Your task to perform on an android device: Open calendar and show me the third week of next month Image 0: 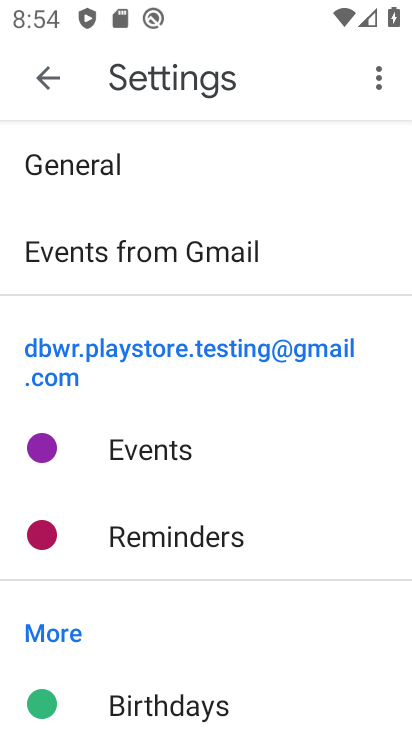
Step 0: press home button
Your task to perform on an android device: Open calendar and show me the third week of next month Image 1: 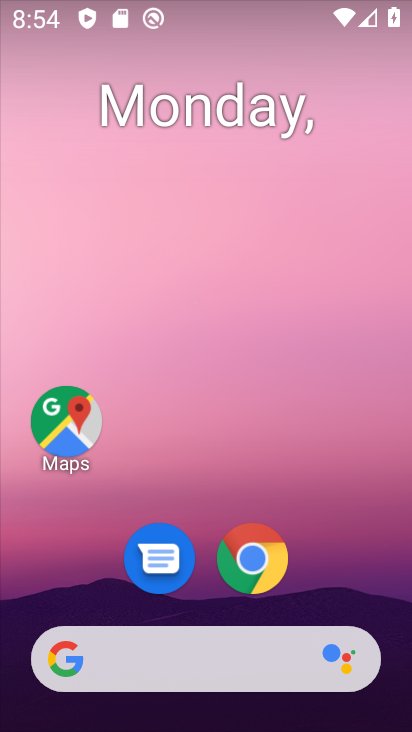
Step 1: drag from (318, 597) to (310, 40)
Your task to perform on an android device: Open calendar and show me the third week of next month Image 2: 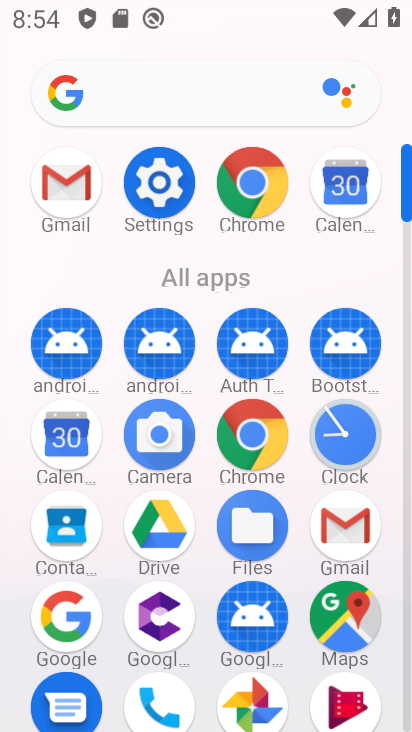
Step 2: click (72, 436)
Your task to perform on an android device: Open calendar and show me the third week of next month Image 3: 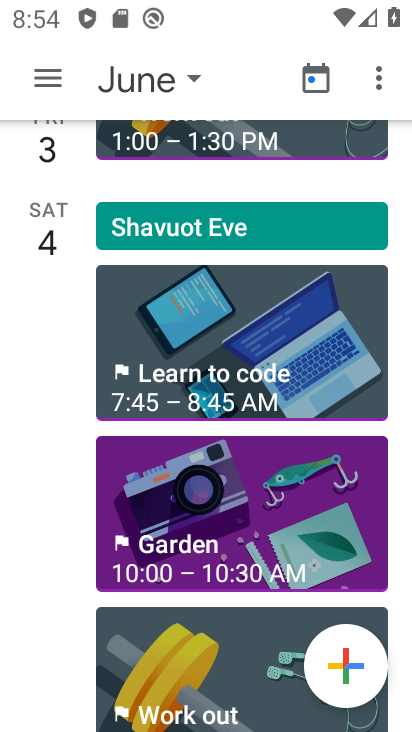
Step 3: click (183, 71)
Your task to perform on an android device: Open calendar and show me the third week of next month Image 4: 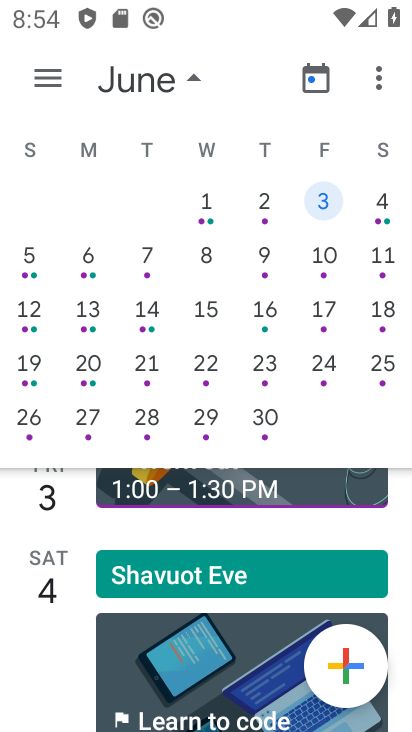
Step 4: click (264, 306)
Your task to perform on an android device: Open calendar and show me the third week of next month Image 5: 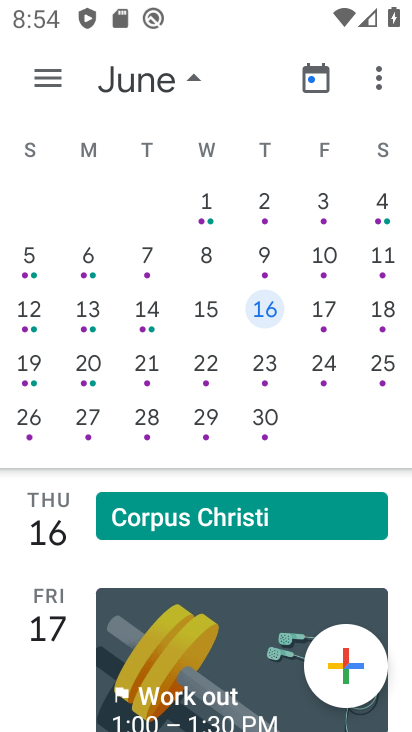
Step 5: task complete